Your task to perform on an android device: change the upload size in google photos Image 0: 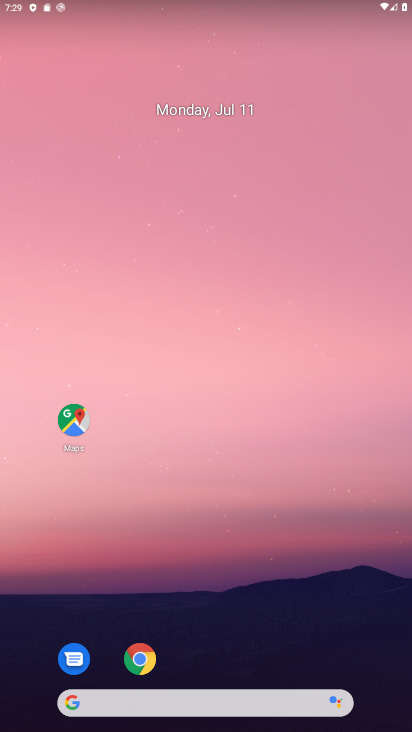
Step 0: drag from (262, 437) to (248, 1)
Your task to perform on an android device: change the upload size in google photos Image 1: 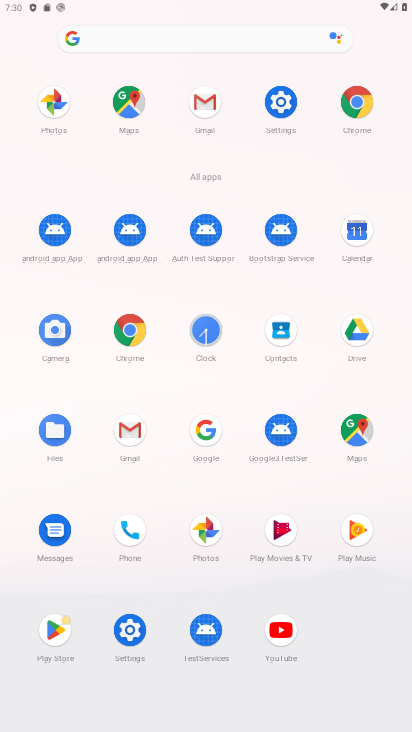
Step 1: click (55, 96)
Your task to perform on an android device: change the upload size in google photos Image 2: 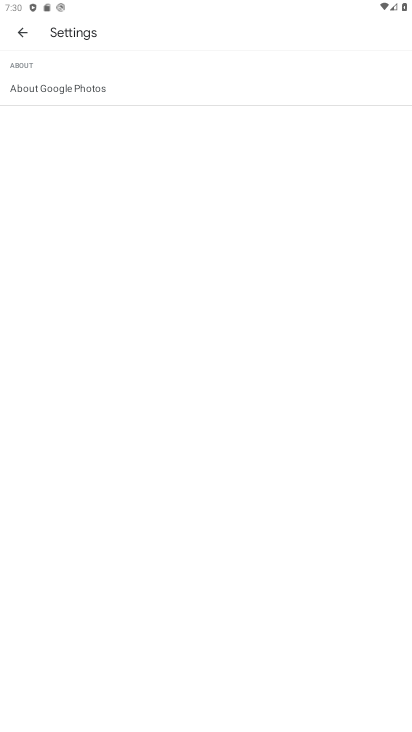
Step 2: click (20, 35)
Your task to perform on an android device: change the upload size in google photos Image 3: 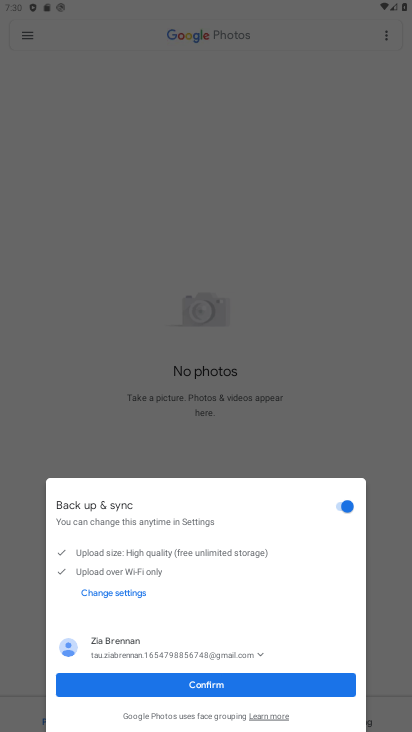
Step 3: click (206, 690)
Your task to perform on an android device: change the upload size in google photos Image 4: 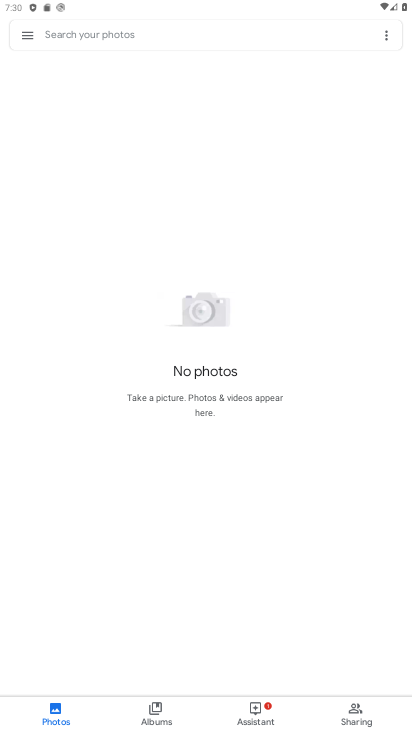
Step 4: click (30, 32)
Your task to perform on an android device: change the upload size in google photos Image 5: 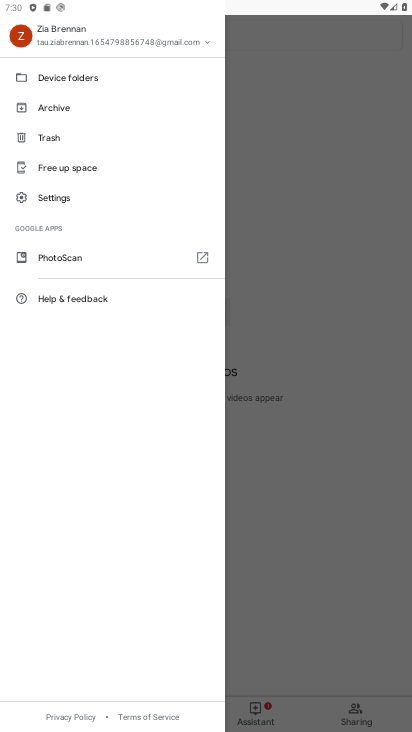
Step 5: click (56, 194)
Your task to perform on an android device: change the upload size in google photos Image 6: 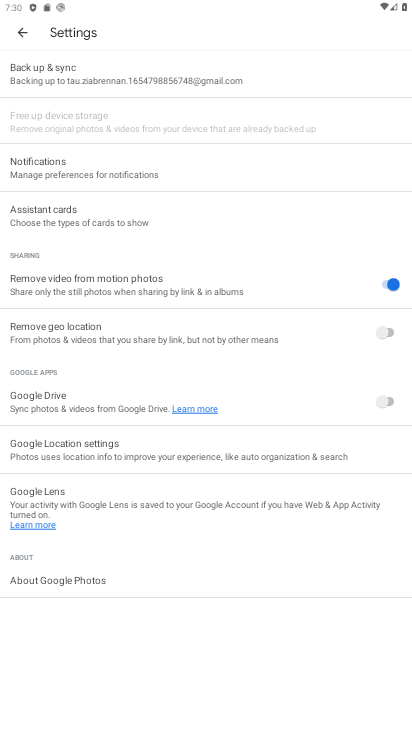
Step 6: click (88, 68)
Your task to perform on an android device: change the upload size in google photos Image 7: 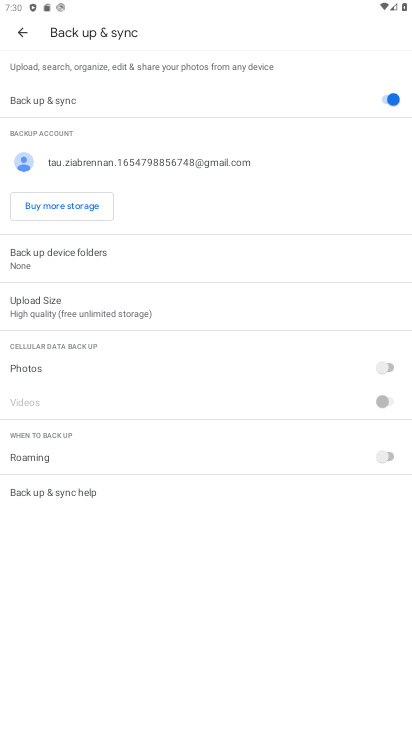
Step 7: click (105, 311)
Your task to perform on an android device: change the upload size in google photos Image 8: 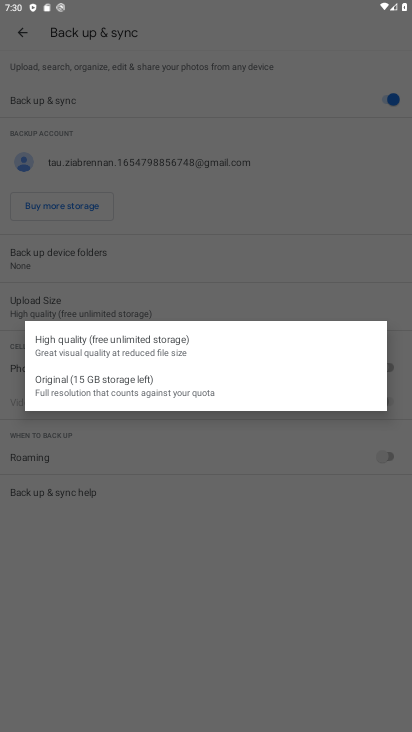
Step 8: click (112, 388)
Your task to perform on an android device: change the upload size in google photos Image 9: 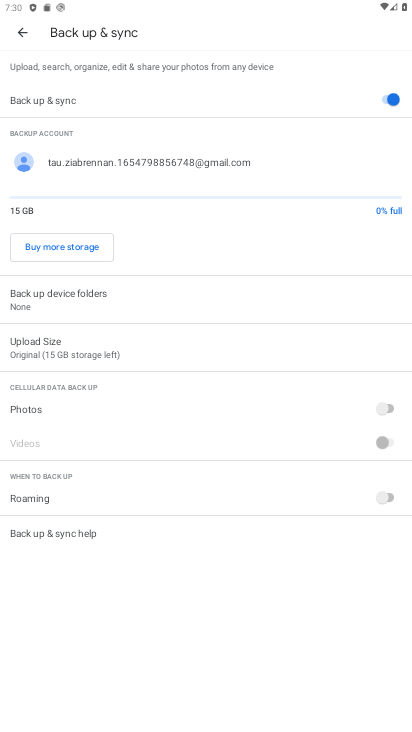
Step 9: task complete